Your task to perform on an android device: Open sound settings Image 0: 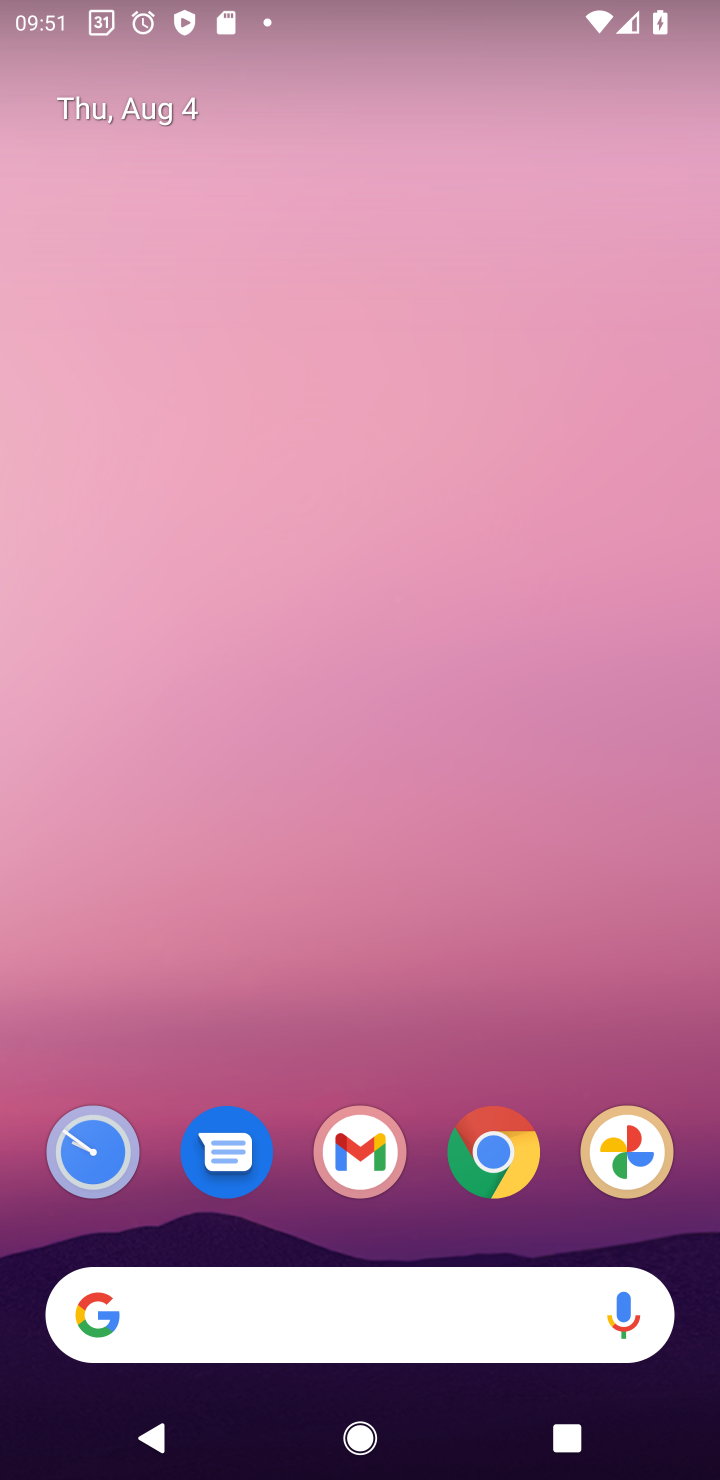
Step 0: press home button
Your task to perform on an android device: Open sound settings Image 1: 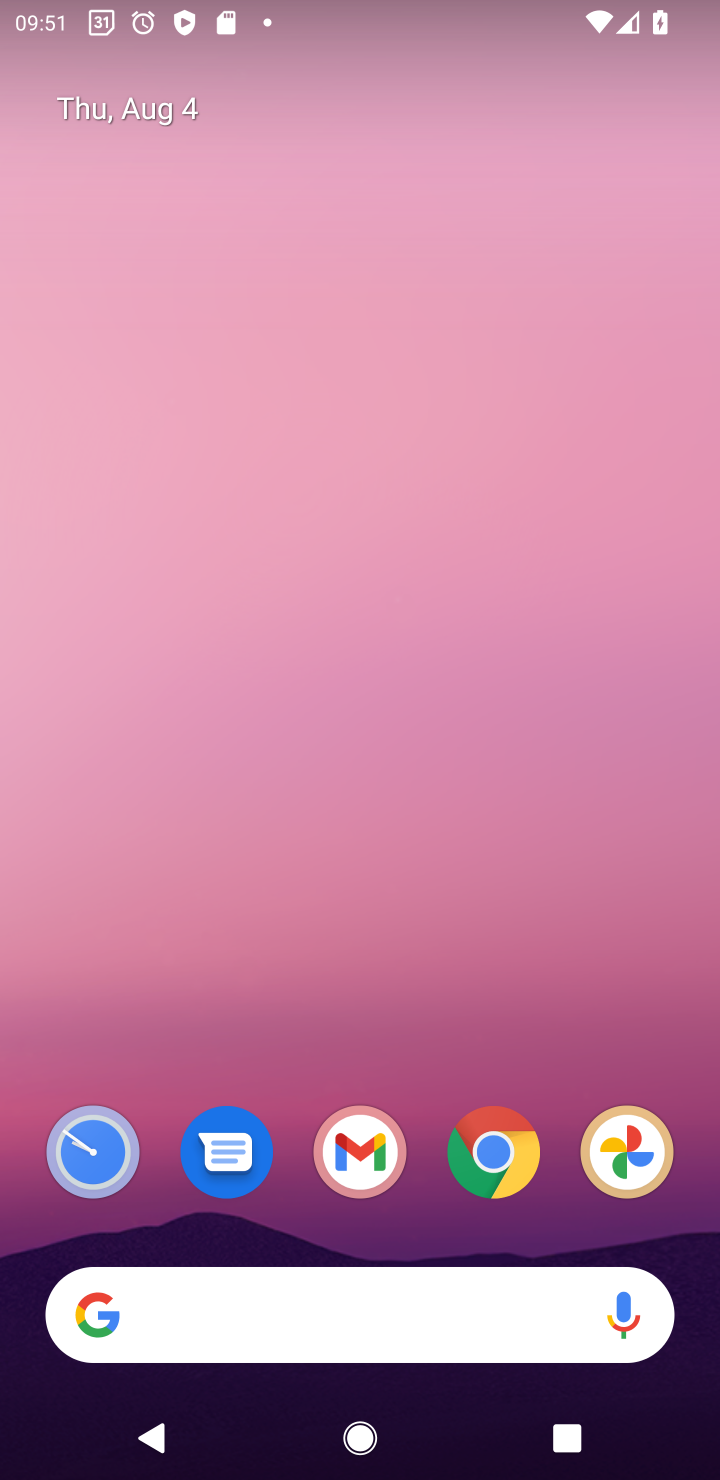
Step 1: drag from (182, 894) to (482, 20)
Your task to perform on an android device: Open sound settings Image 2: 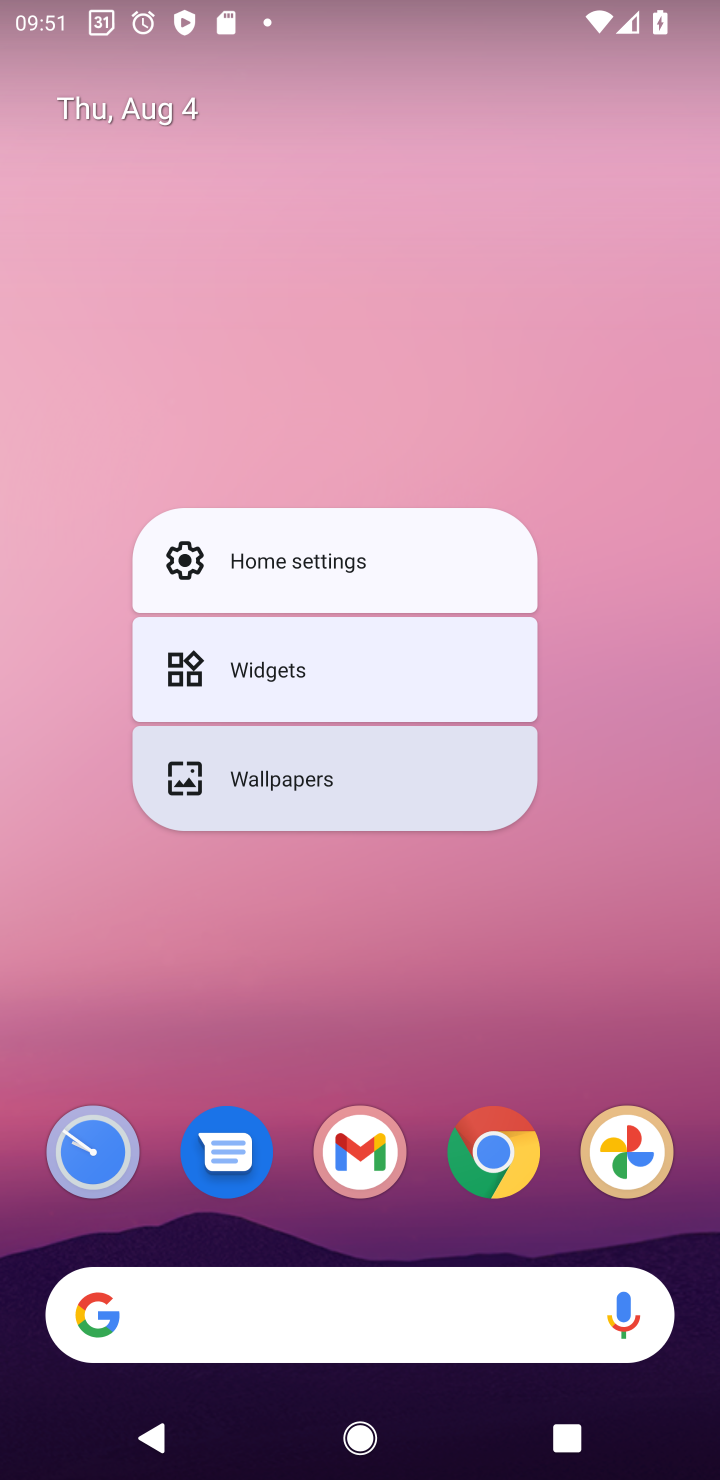
Step 2: click (47, 911)
Your task to perform on an android device: Open sound settings Image 3: 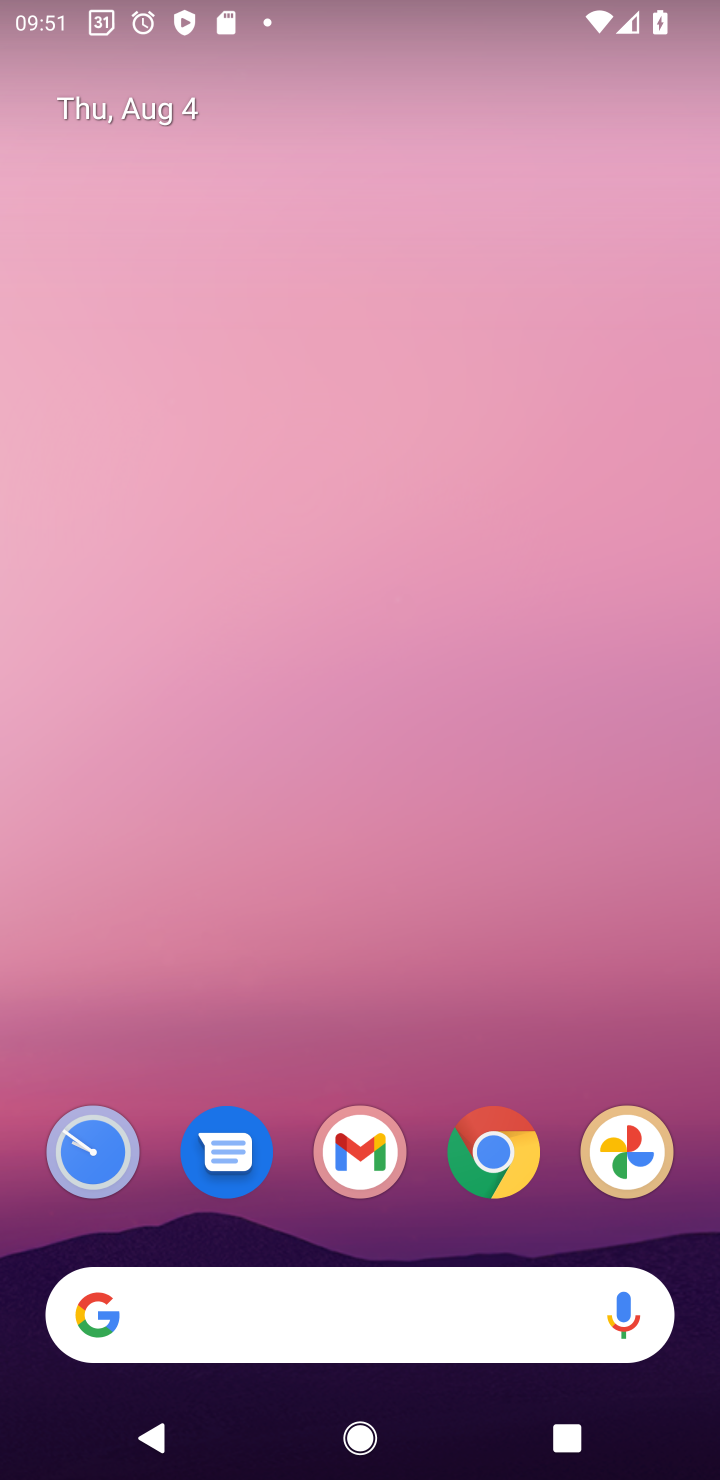
Step 3: drag from (76, 1221) to (462, 260)
Your task to perform on an android device: Open sound settings Image 4: 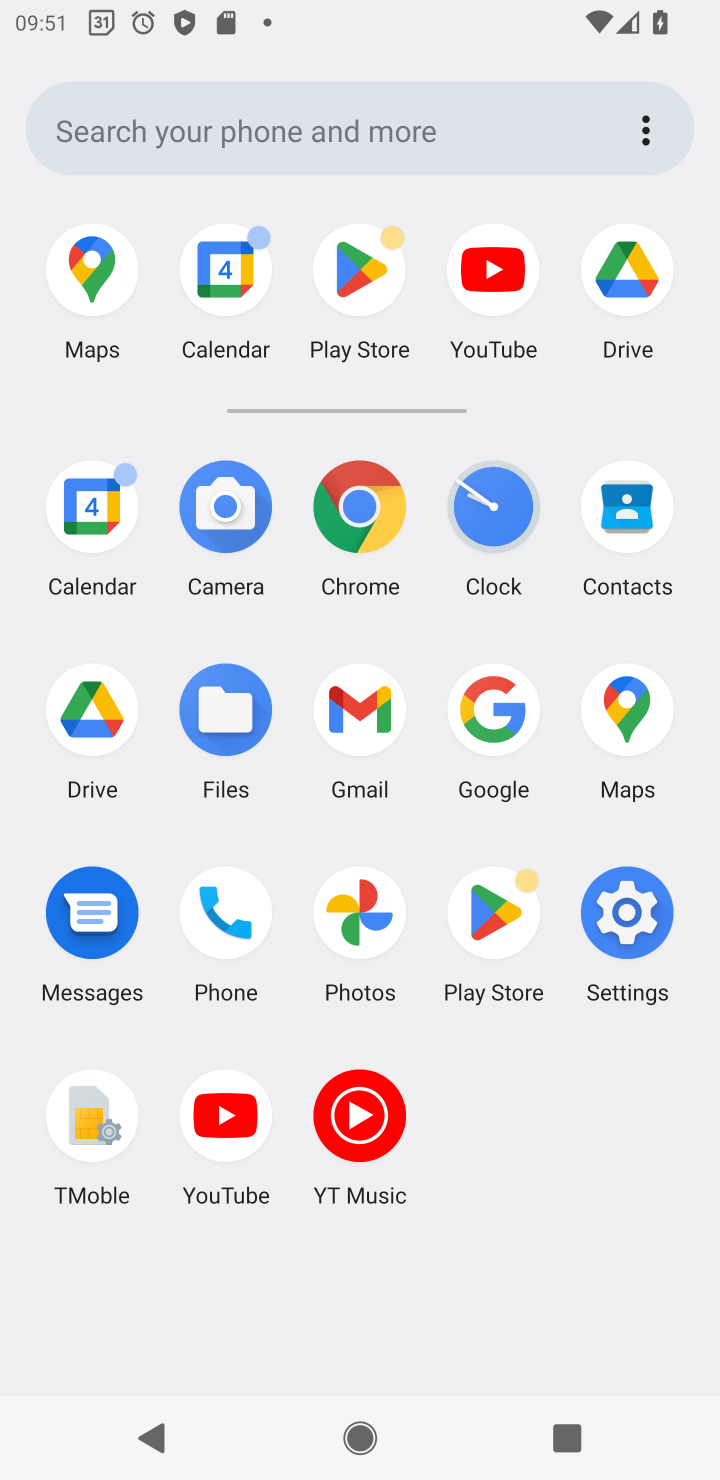
Step 4: click (634, 901)
Your task to perform on an android device: Open sound settings Image 5: 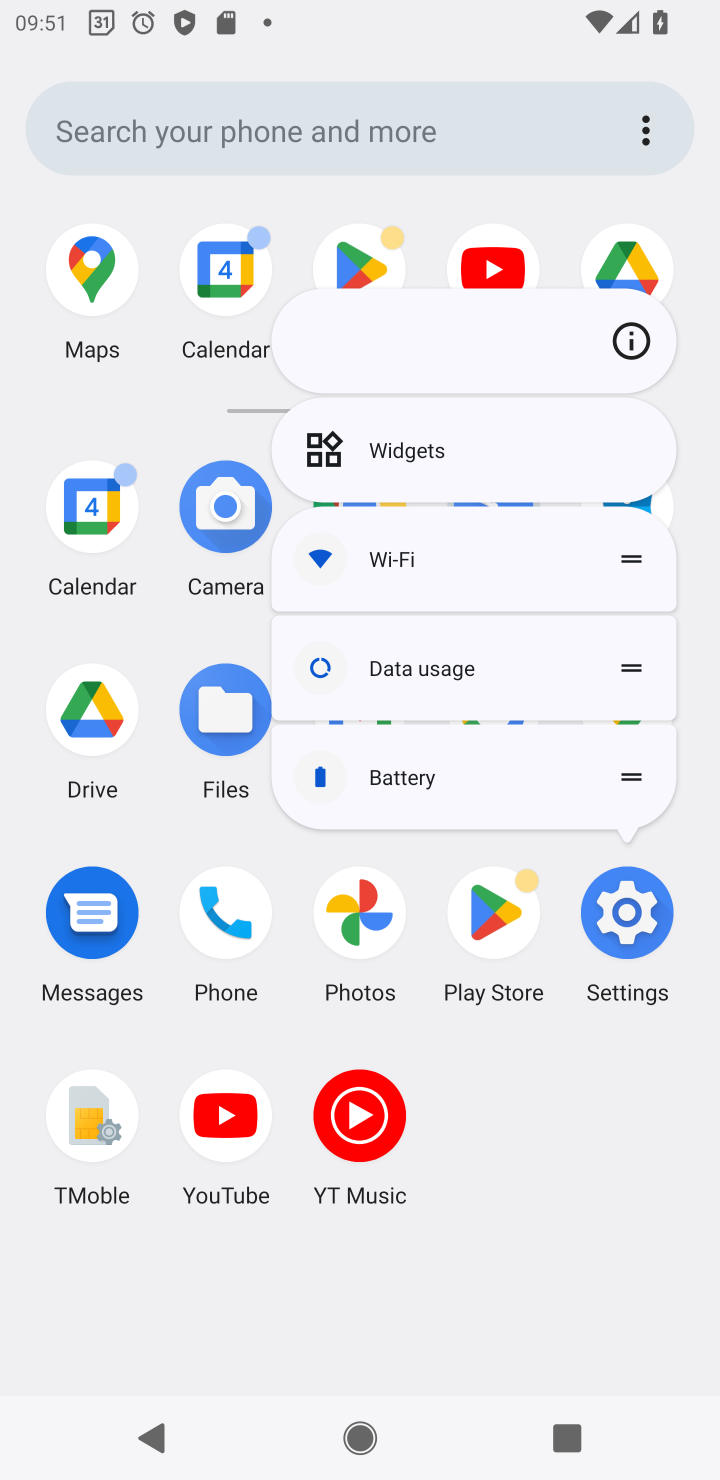
Step 5: click (638, 908)
Your task to perform on an android device: Open sound settings Image 6: 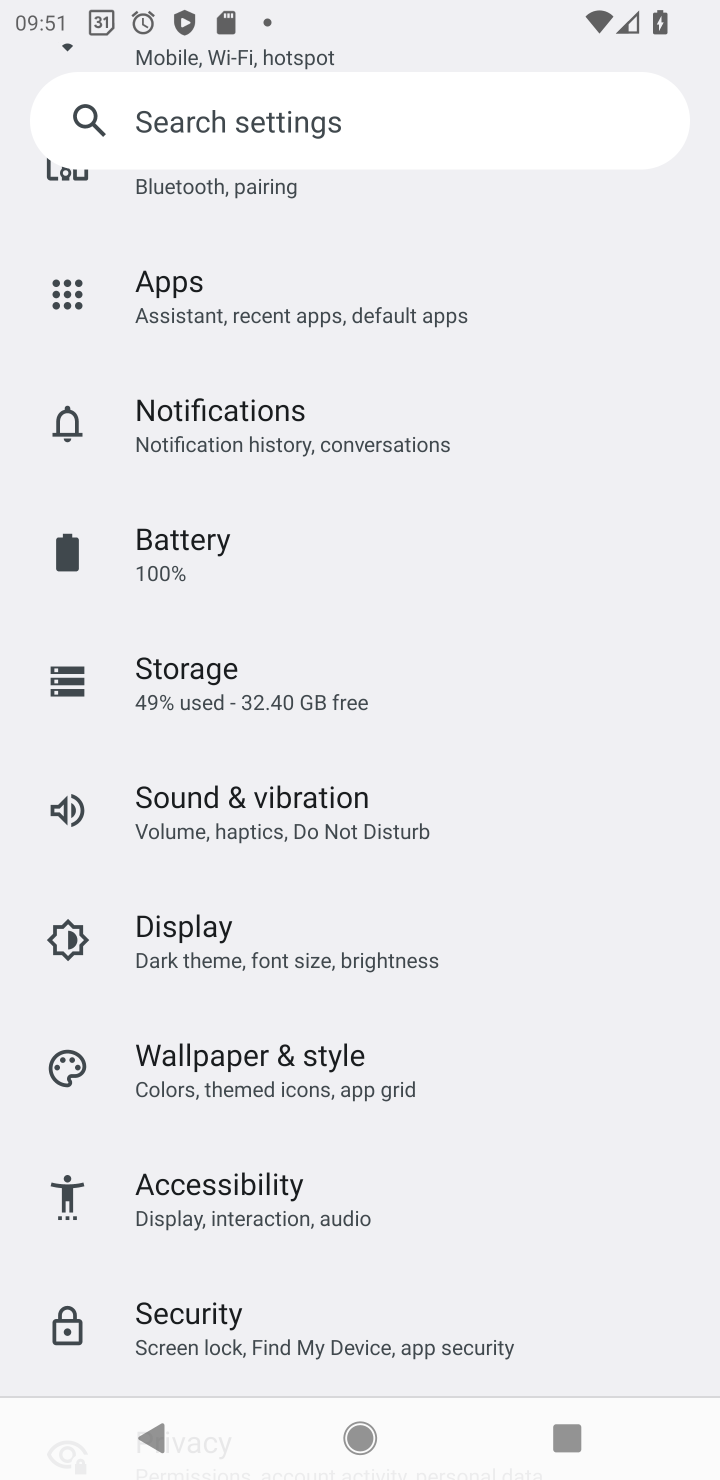
Step 6: click (250, 793)
Your task to perform on an android device: Open sound settings Image 7: 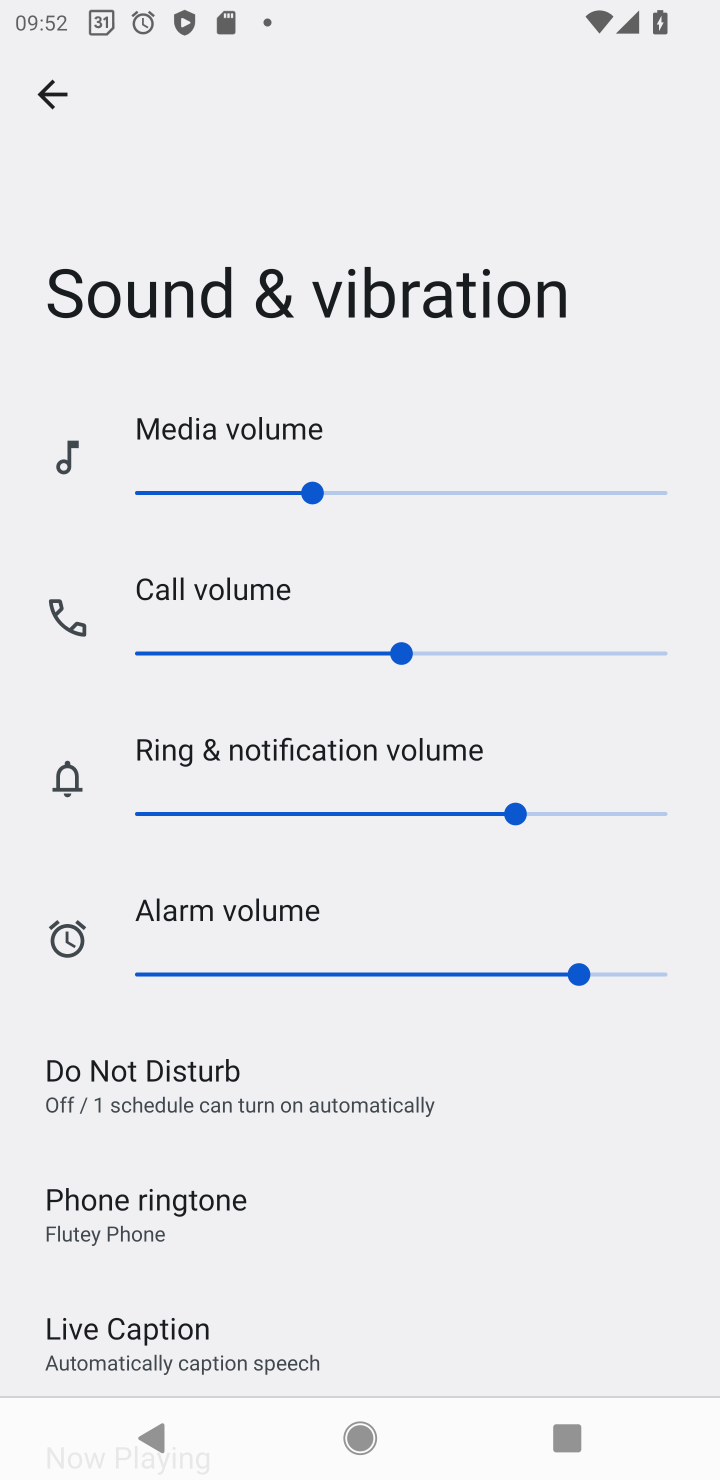
Step 7: task complete